Your task to perform on an android device: Search for Mexican restaurants on Maps Image 0: 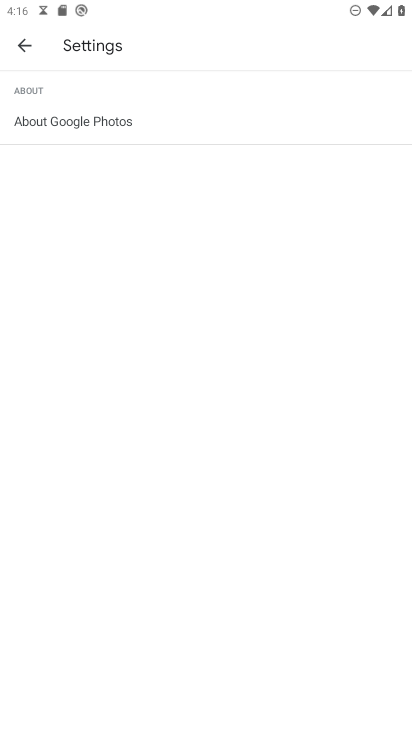
Step 0: press home button
Your task to perform on an android device: Search for Mexican restaurants on Maps Image 1: 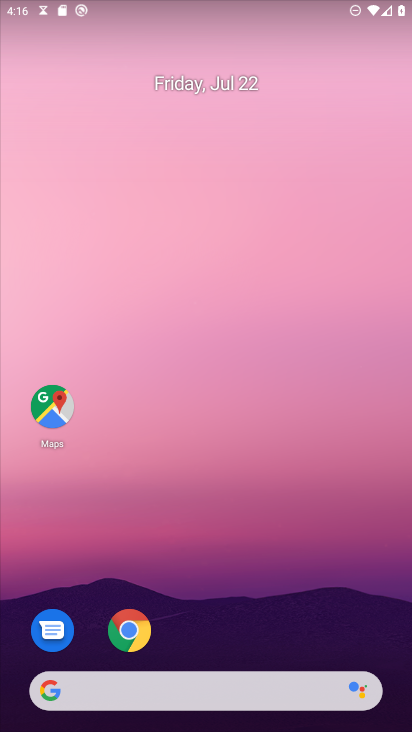
Step 1: click (58, 414)
Your task to perform on an android device: Search for Mexican restaurants on Maps Image 2: 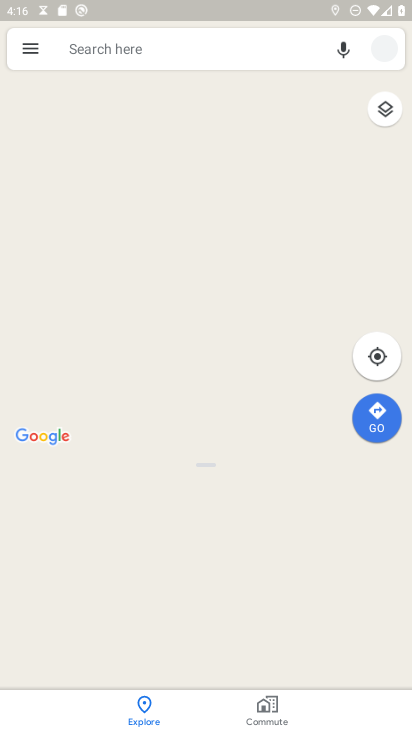
Step 2: click (149, 44)
Your task to perform on an android device: Search for Mexican restaurants on Maps Image 3: 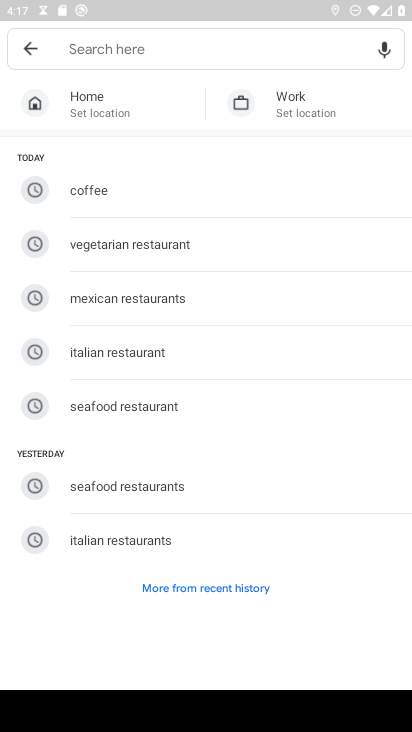
Step 3: type "Mexican restaurants"
Your task to perform on an android device: Search for Mexican restaurants on Maps Image 4: 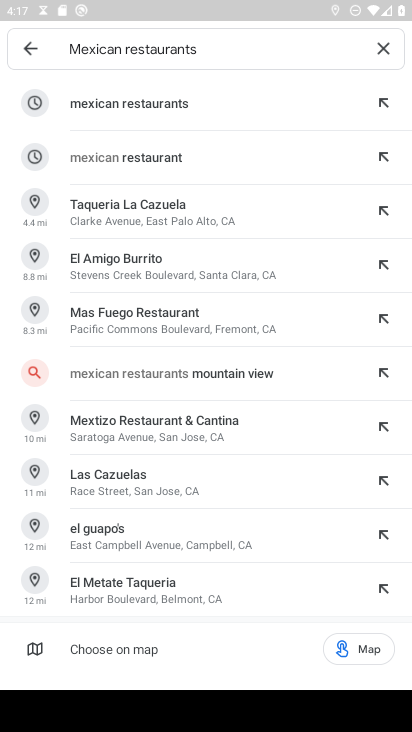
Step 4: click (156, 109)
Your task to perform on an android device: Search for Mexican restaurants on Maps Image 5: 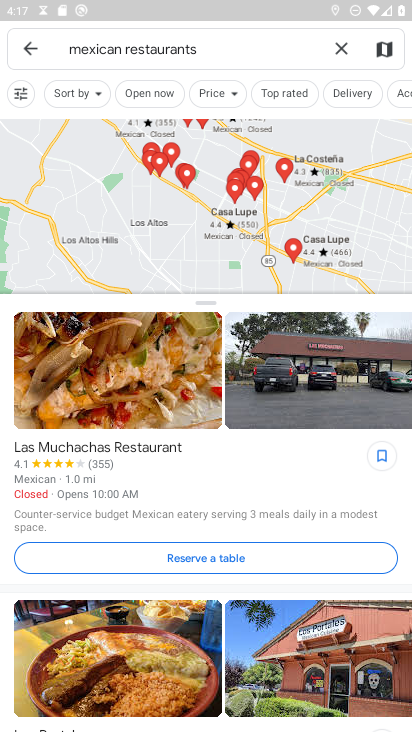
Step 5: task complete